Your task to perform on an android device: turn on the 24-hour format for clock Image 0: 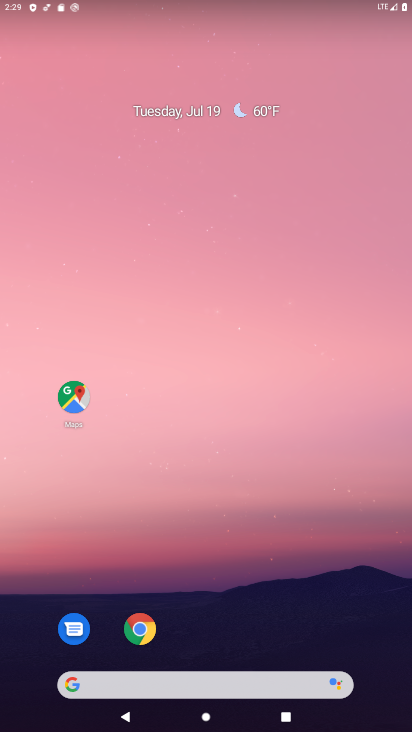
Step 0: drag from (194, 623) to (204, 150)
Your task to perform on an android device: turn on the 24-hour format for clock Image 1: 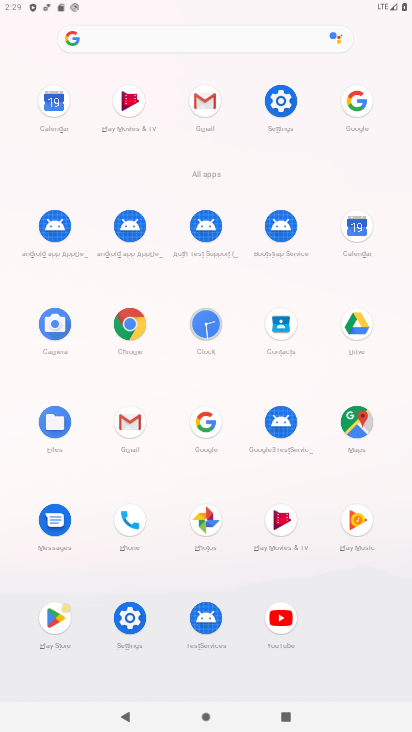
Step 1: click (211, 330)
Your task to perform on an android device: turn on the 24-hour format for clock Image 2: 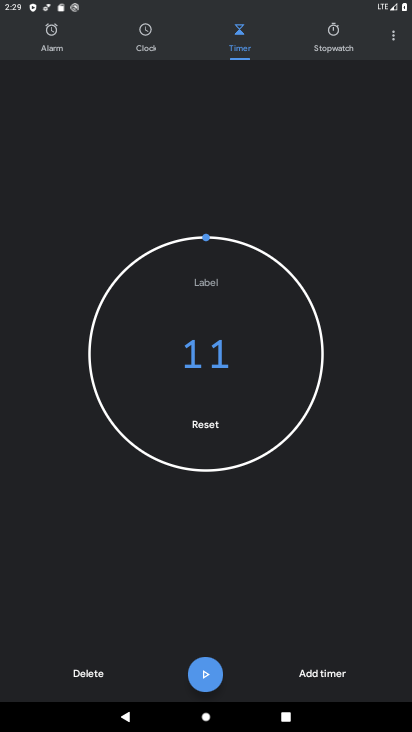
Step 2: click (393, 27)
Your task to perform on an android device: turn on the 24-hour format for clock Image 3: 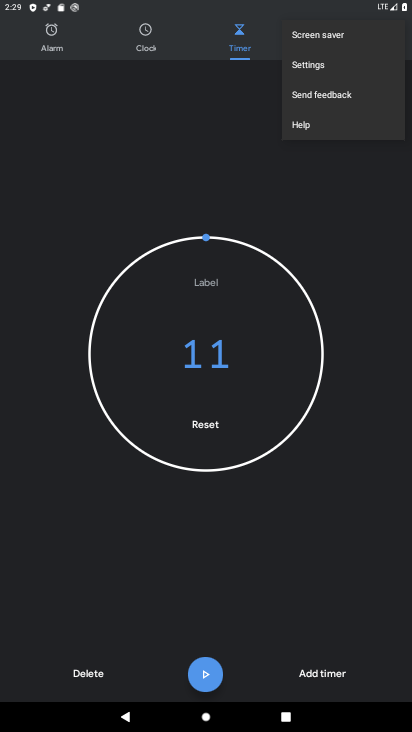
Step 3: click (345, 75)
Your task to perform on an android device: turn on the 24-hour format for clock Image 4: 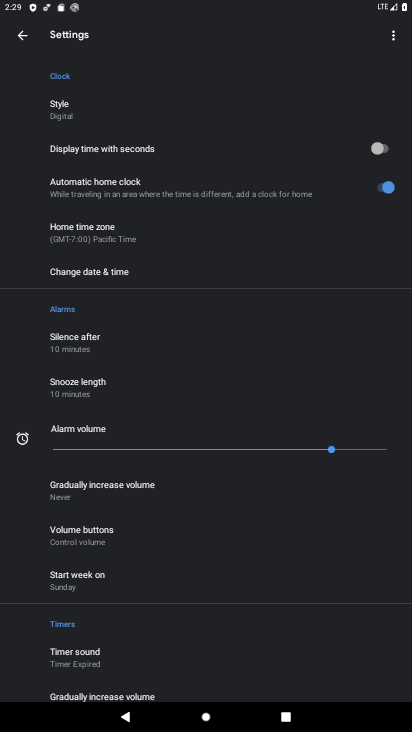
Step 4: click (135, 272)
Your task to perform on an android device: turn on the 24-hour format for clock Image 5: 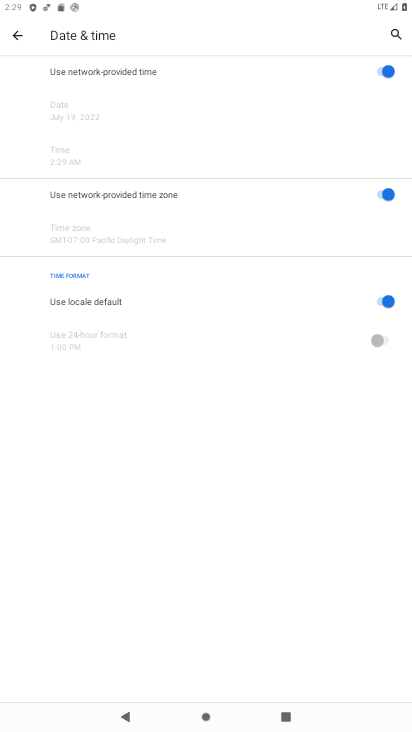
Step 5: click (380, 336)
Your task to perform on an android device: turn on the 24-hour format for clock Image 6: 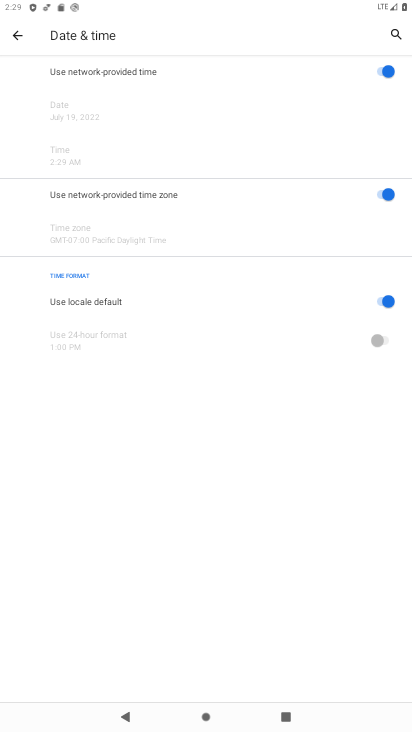
Step 6: click (379, 304)
Your task to perform on an android device: turn on the 24-hour format for clock Image 7: 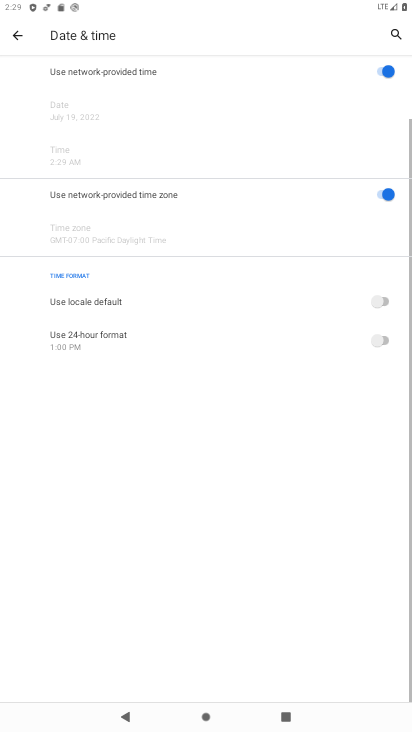
Step 7: click (380, 333)
Your task to perform on an android device: turn on the 24-hour format for clock Image 8: 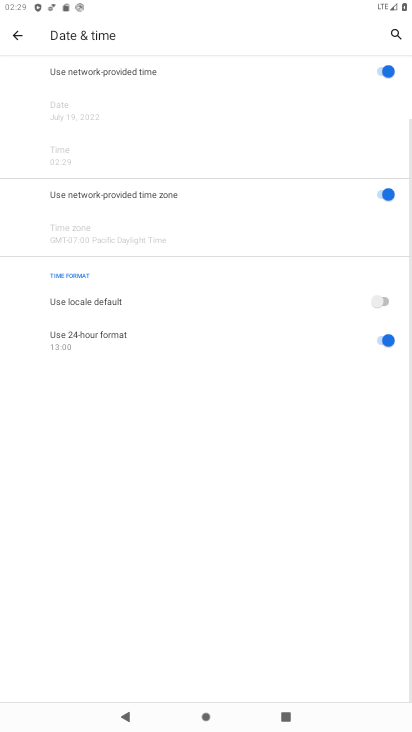
Step 8: task complete